Your task to perform on an android device: delete location history Image 0: 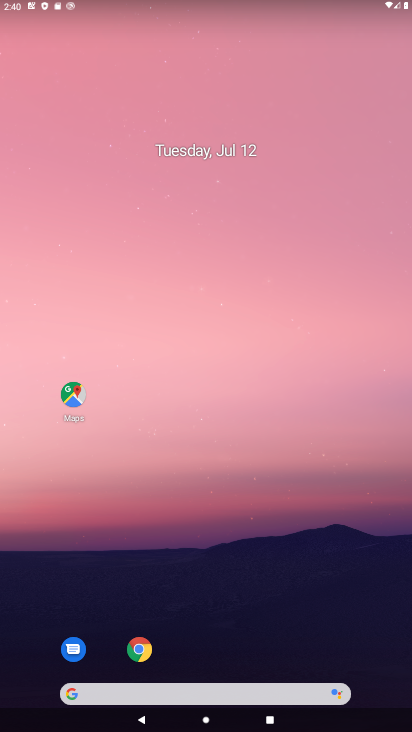
Step 0: drag from (257, 660) to (211, 1)
Your task to perform on an android device: delete location history Image 1: 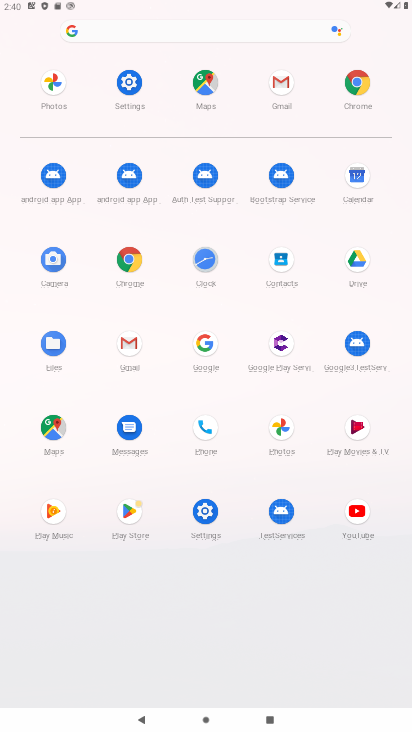
Step 1: click (147, 85)
Your task to perform on an android device: delete location history Image 2: 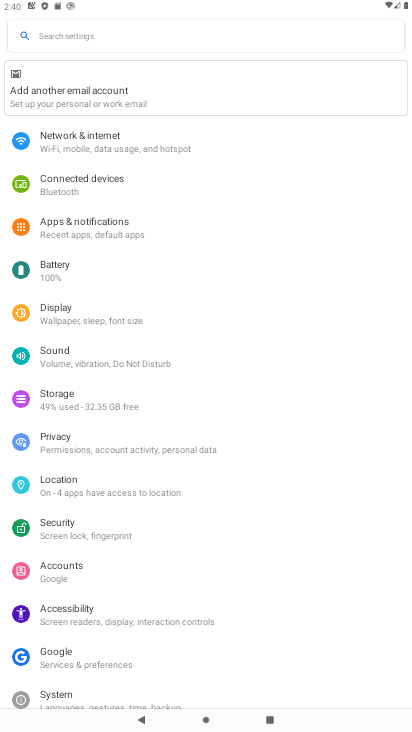
Step 2: click (106, 481)
Your task to perform on an android device: delete location history Image 3: 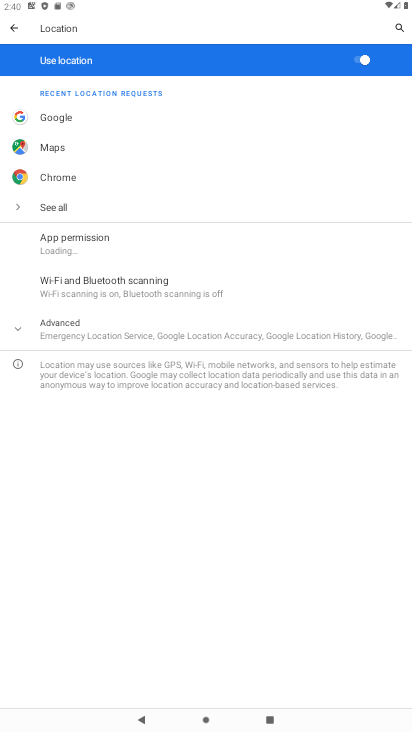
Step 3: click (106, 322)
Your task to perform on an android device: delete location history Image 4: 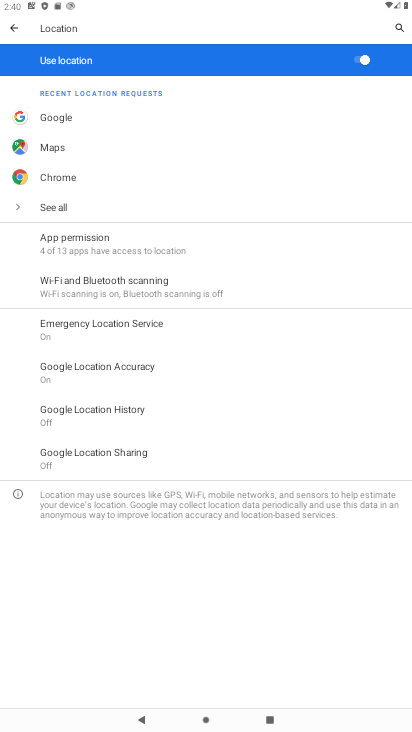
Step 4: click (133, 402)
Your task to perform on an android device: delete location history Image 5: 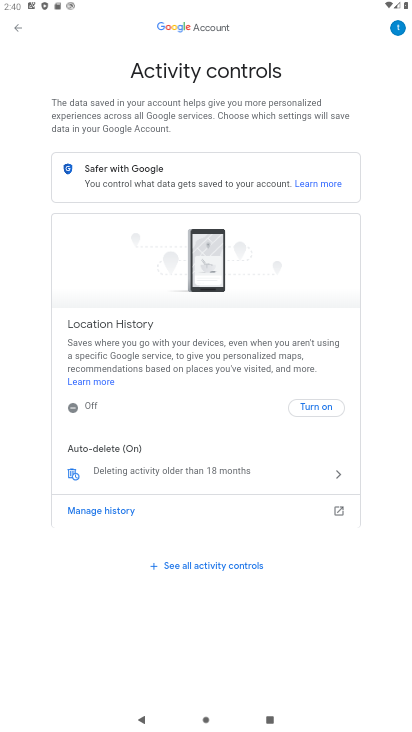
Step 5: click (120, 519)
Your task to perform on an android device: delete location history Image 6: 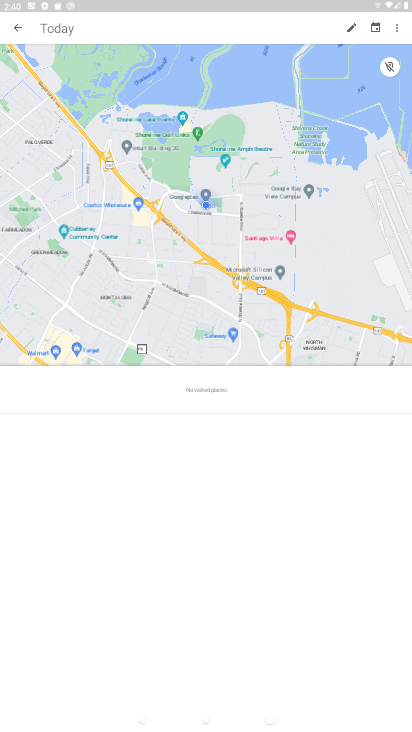
Step 6: click (10, 18)
Your task to perform on an android device: delete location history Image 7: 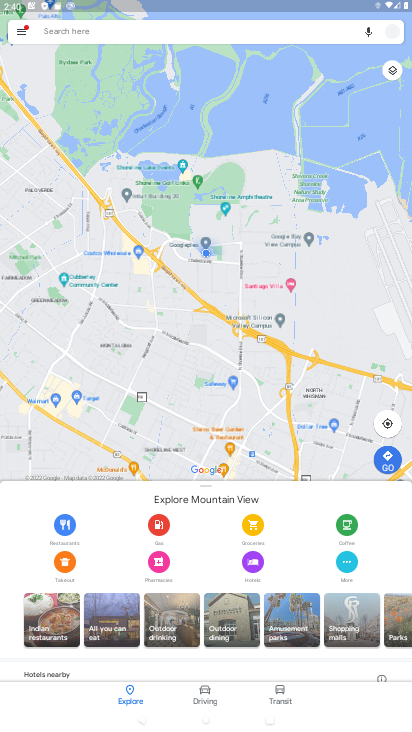
Step 7: click (22, 36)
Your task to perform on an android device: delete location history Image 8: 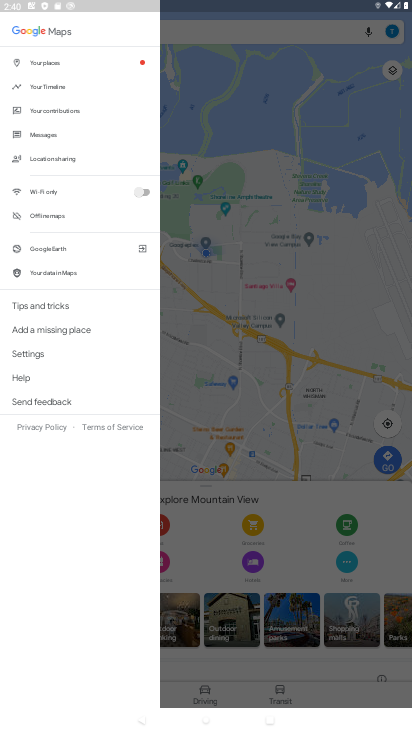
Step 8: task complete